Your task to perform on an android device: Open Google Chrome and open the bookmarks view Image 0: 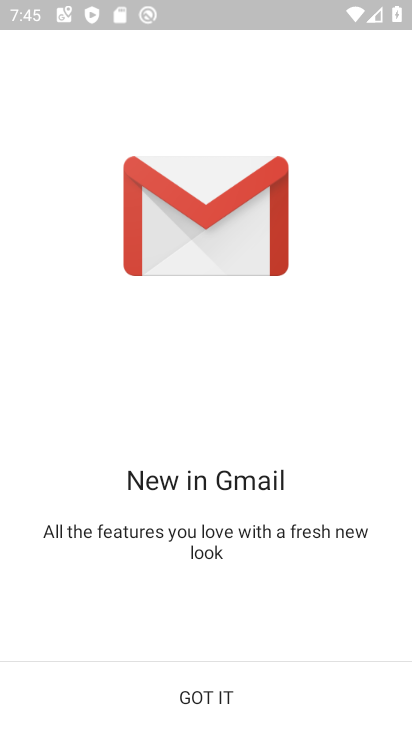
Step 0: press home button
Your task to perform on an android device: Open Google Chrome and open the bookmarks view Image 1: 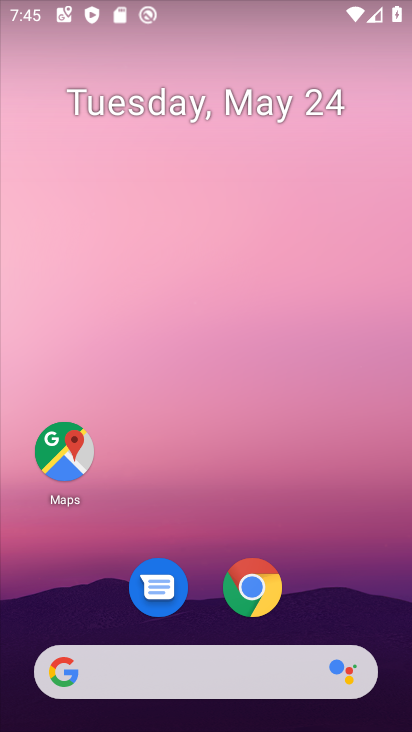
Step 1: click (247, 596)
Your task to perform on an android device: Open Google Chrome and open the bookmarks view Image 2: 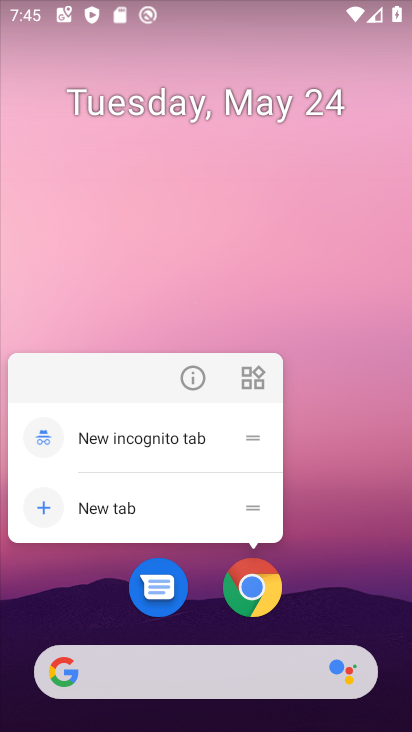
Step 2: click (247, 596)
Your task to perform on an android device: Open Google Chrome and open the bookmarks view Image 3: 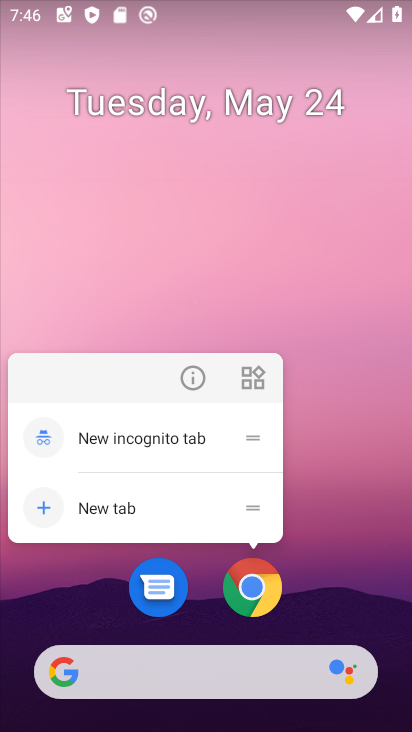
Step 3: click (247, 595)
Your task to perform on an android device: Open Google Chrome and open the bookmarks view Image 4: 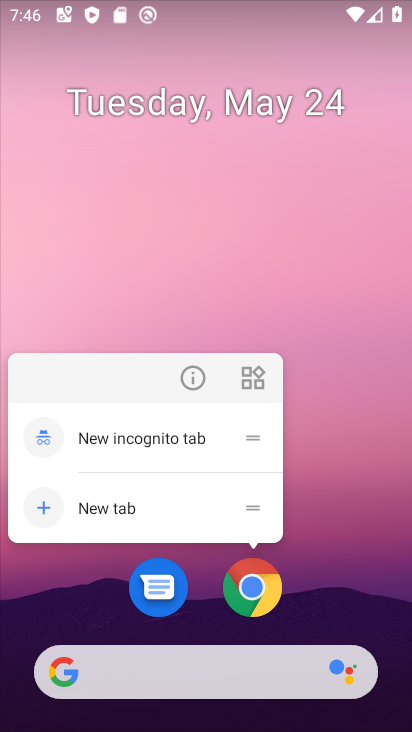
Step 4: click (251, 588)
Your task to perform on an android device: Open Google Chrome and open the bookmarks view Image 5: 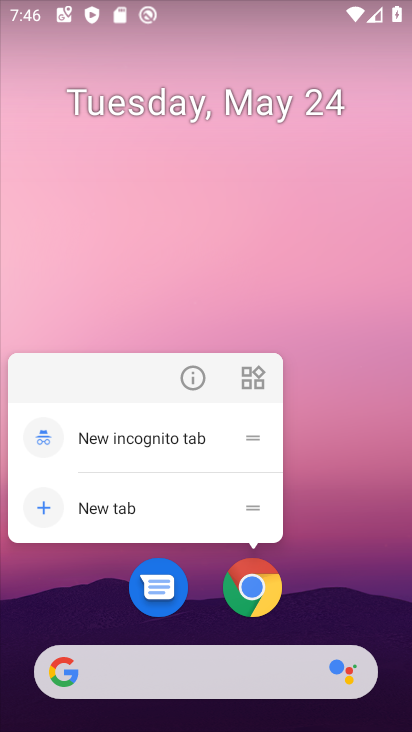
Step 5: click (251, 588)
Your task to perform on an android device: Open Google Chrome and open the bookmarks view Image 6: 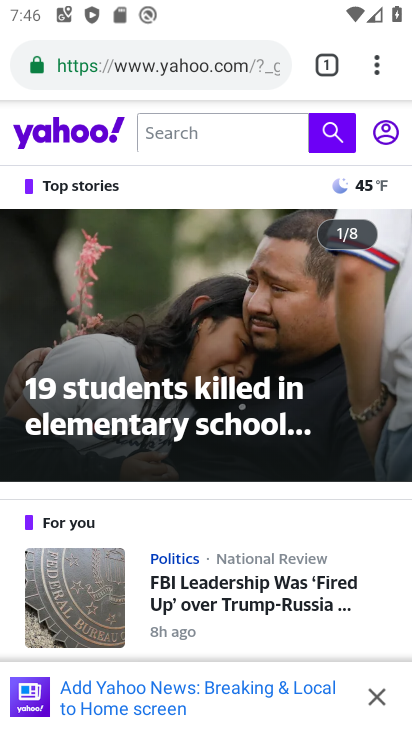
Step 6: click (381, 67)
Your task to perform on an android device: Open Google Chrome and open the bookmarks view Image 7: 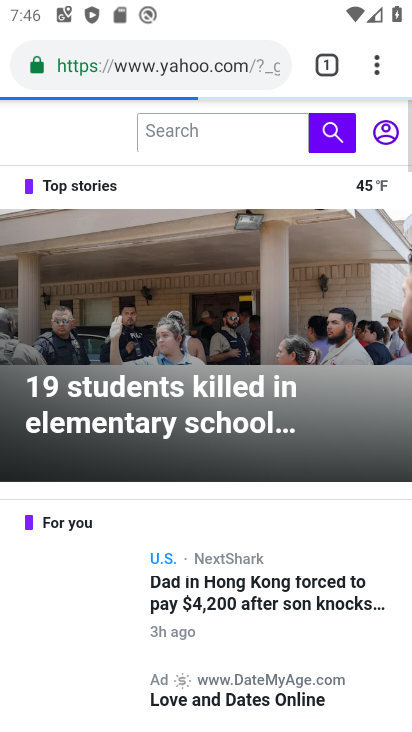
Step 7: click (372, 65)
Your task to perform on an android device: Open Google Chrome and open the bookmarks view Image 8: 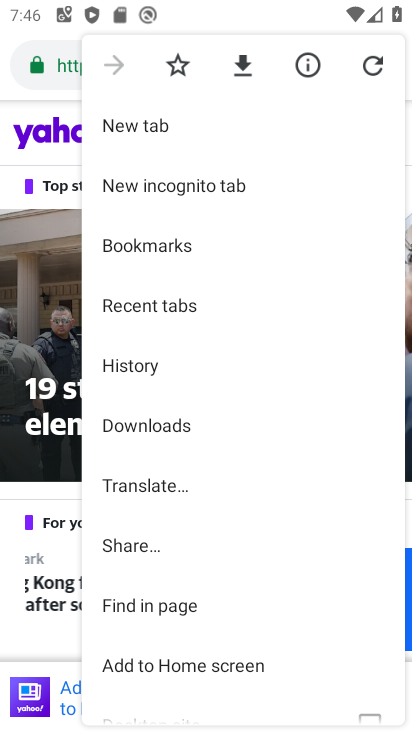
Step 8: click (194, 243)
Your task to perform on an android device: Open Google Chrome and open the bookmarks view Image 9: 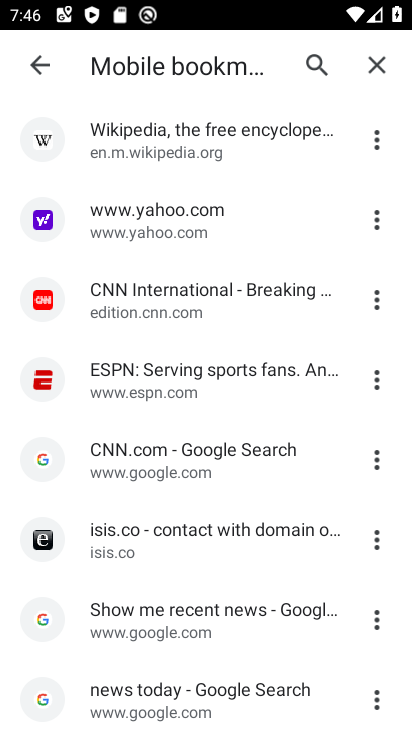
Step 9: task complete